Your task to perform on an android device: Search for vegetarian restaurants on Maps Image 0: 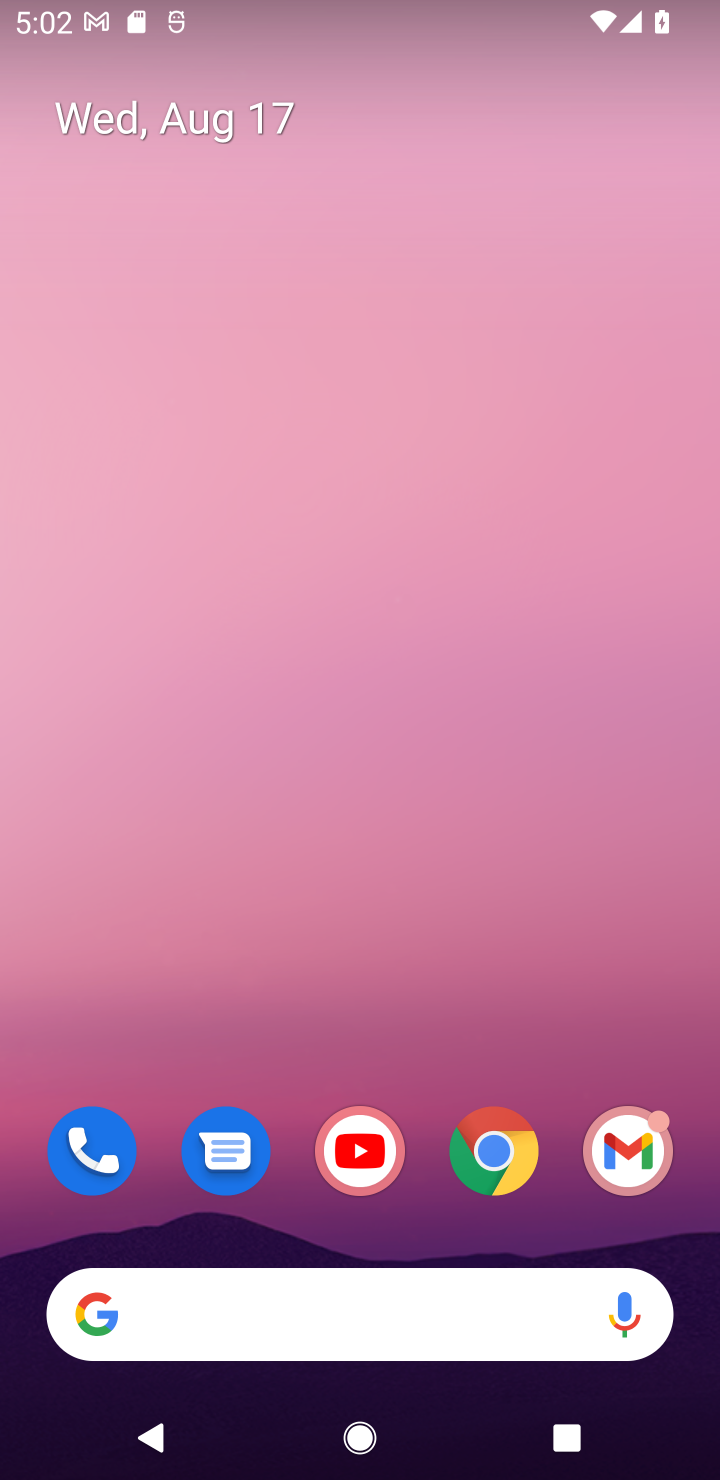
Step 0: drag from (554, 1226) to (514, 340)
Your task to perform on an android device: Search for vegetarian restaurants on Maps Image 1: 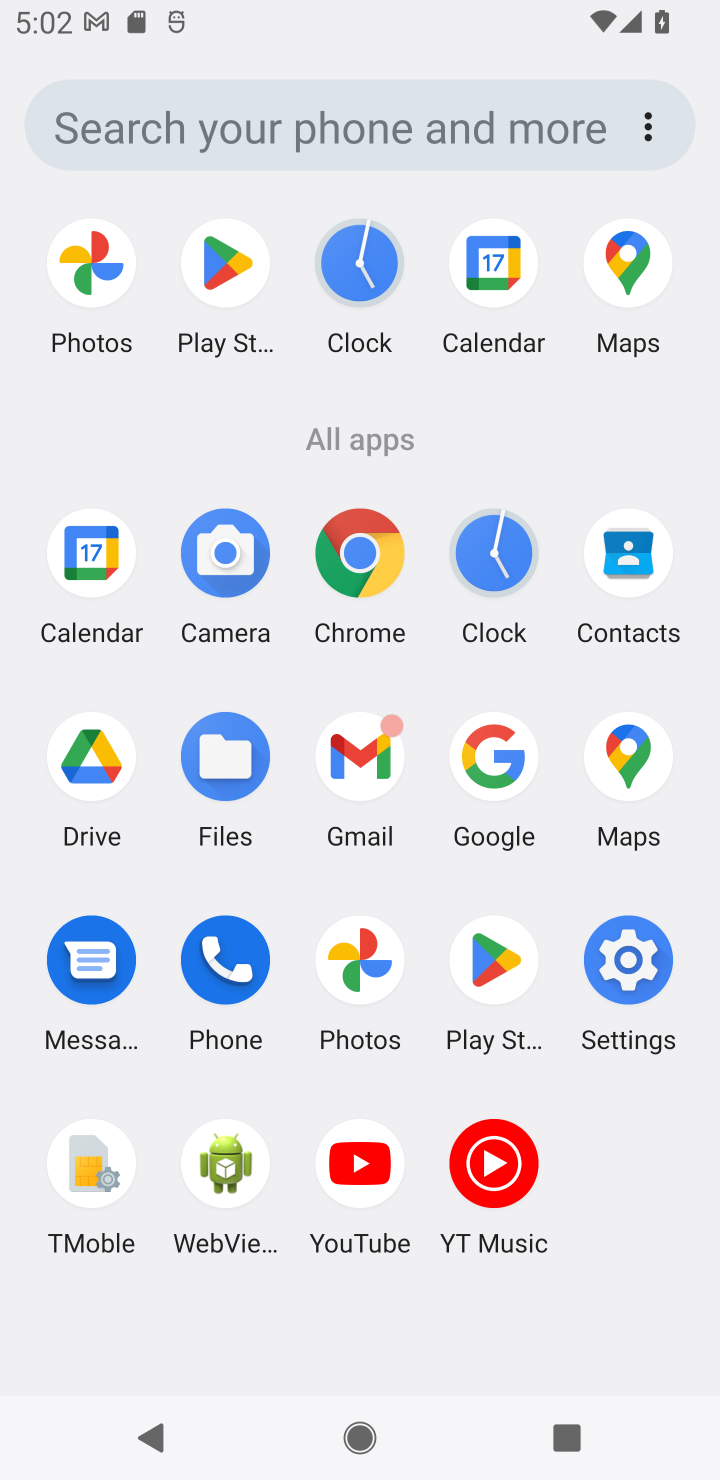
Step 1: click (630, 751)
Your task to perform on an android device: Search for vegetarian restaurants on Maps Image 2: 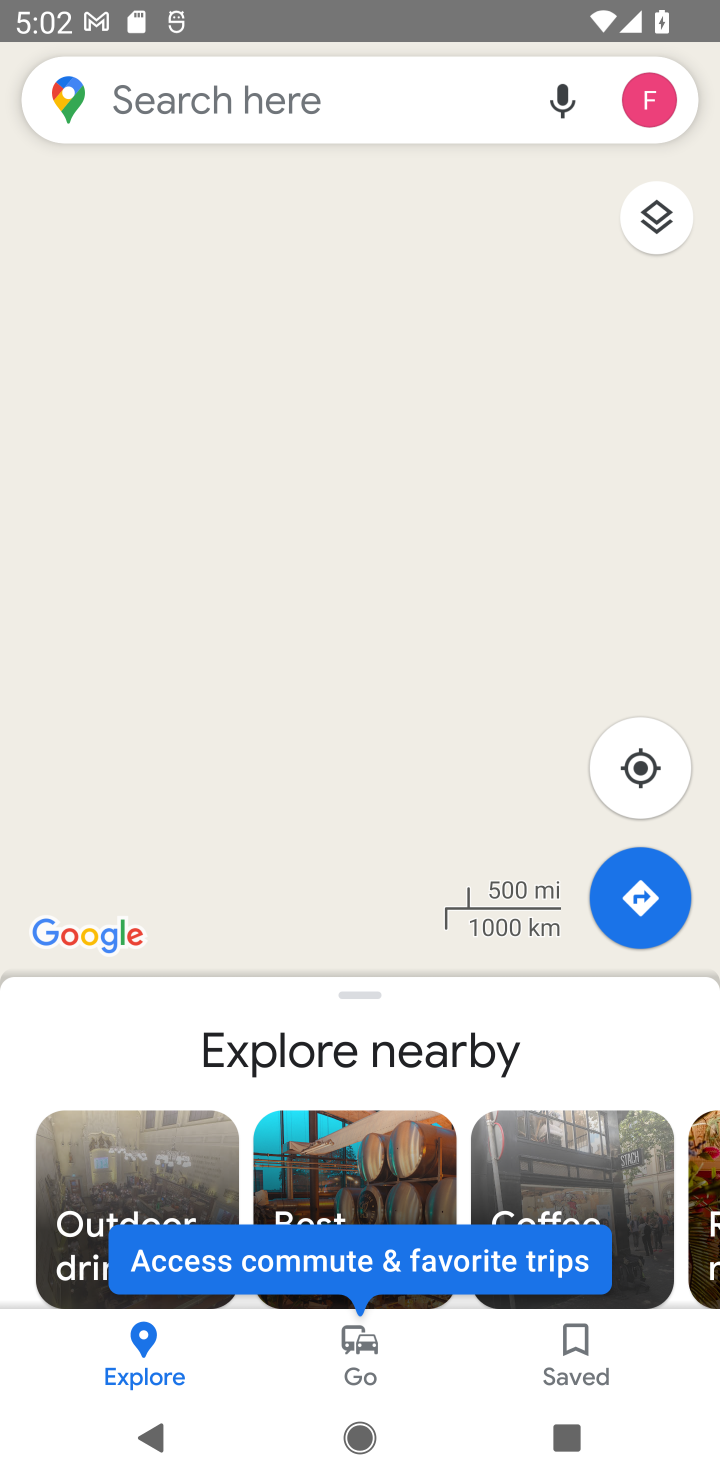
Step 2: click (275, 109)
Your task to perform on an android device: Search for vegetarian restaurants on Maps Image 3: 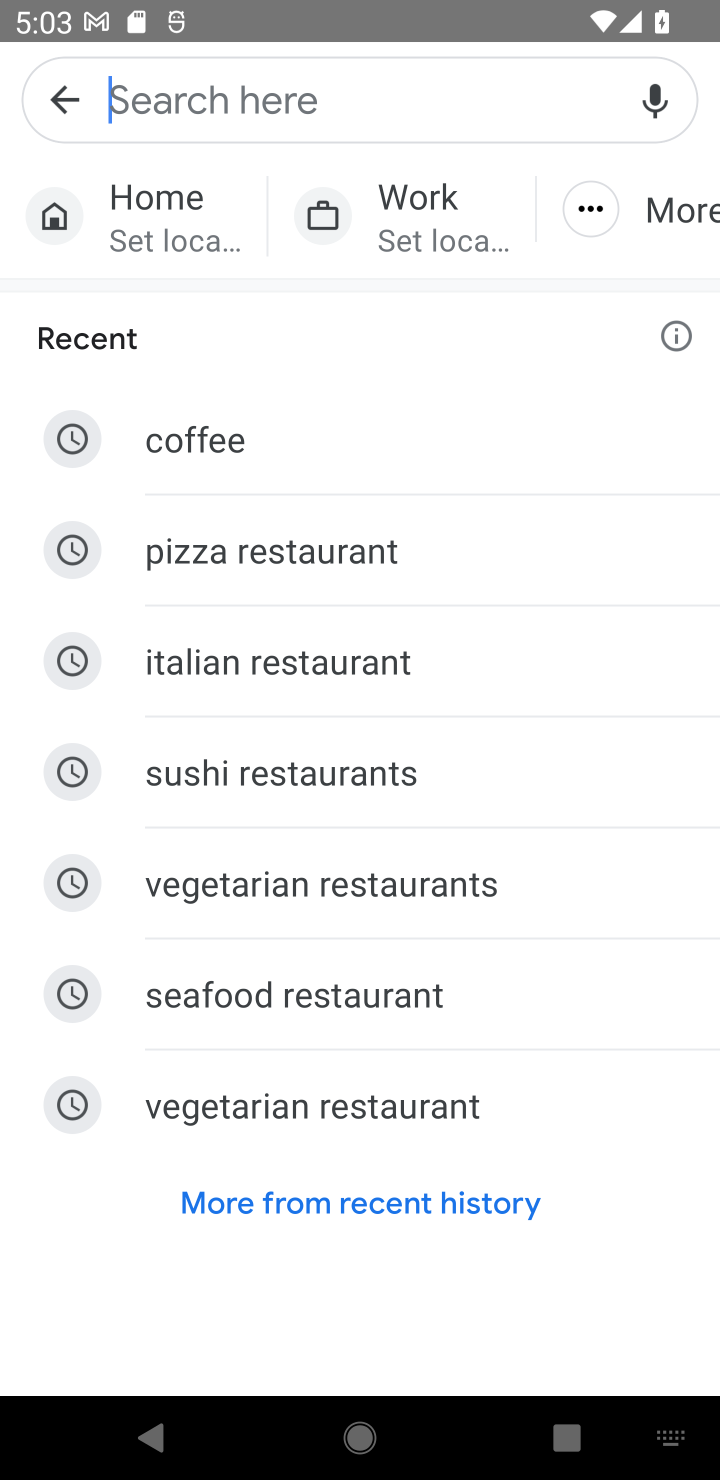
Step 3: type "vegetarian restaurants"
Your task to perform on an android device: Search for vegetarian restaurants on Maps Image 4: 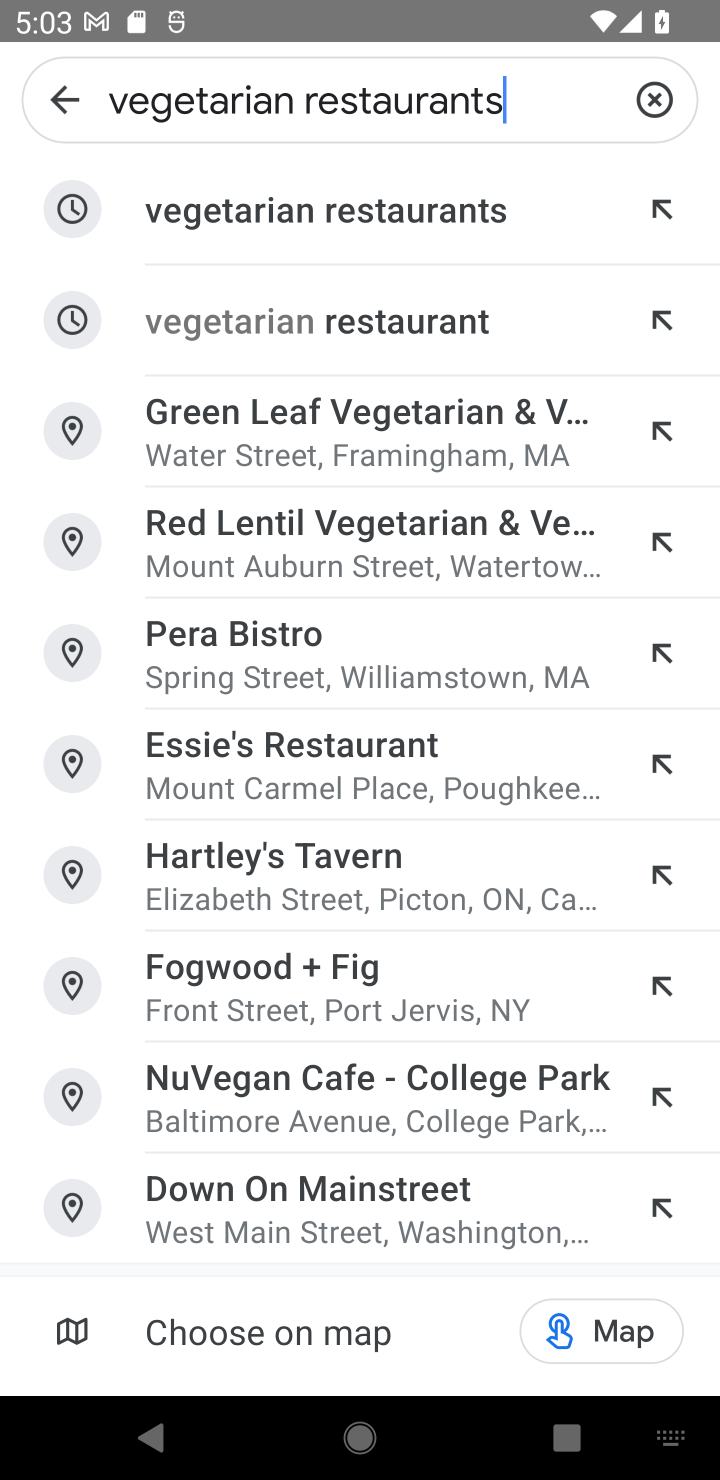
Step 4: click (317, 207)
Your task to perform on an android device: Search for vegetarian restaurants on Maps Image 5: 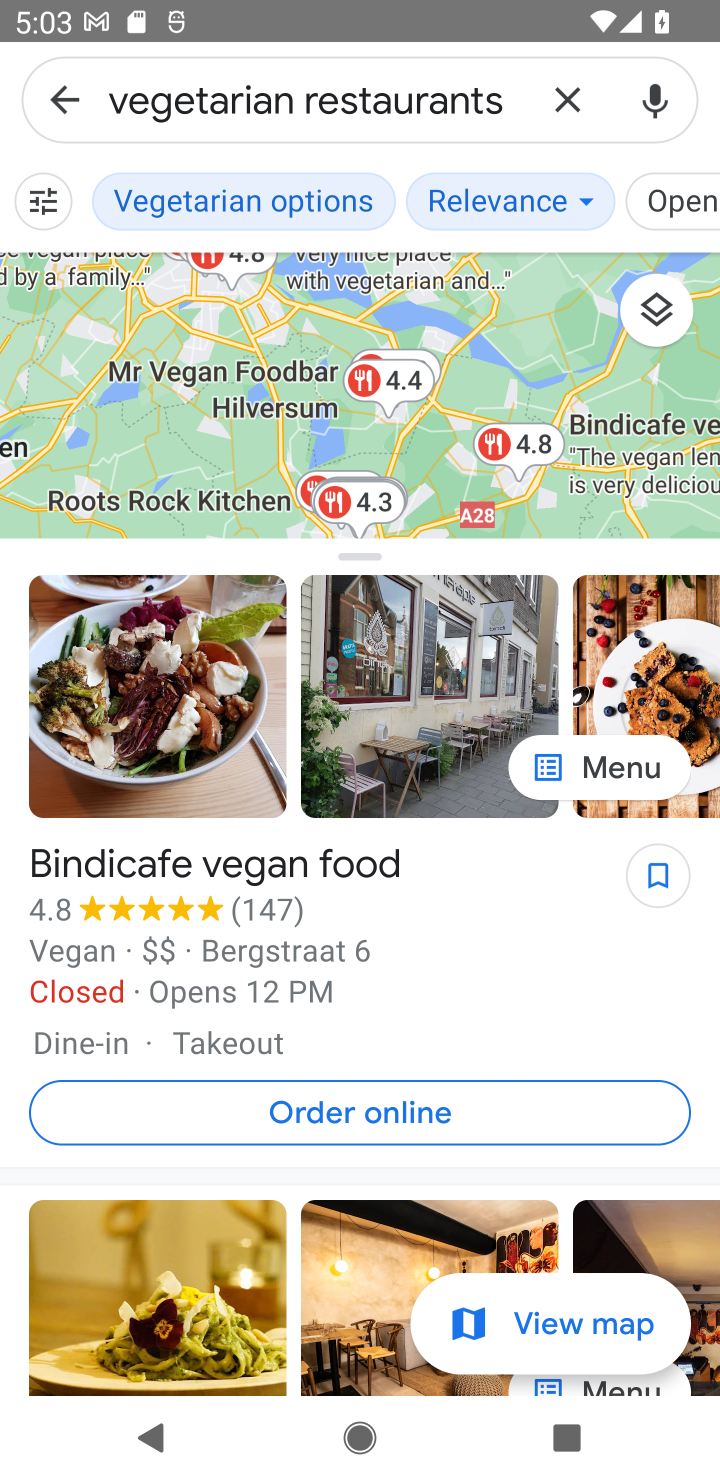
Step 5: task complete